Your task to perform on an android device: turn off location Image 0: 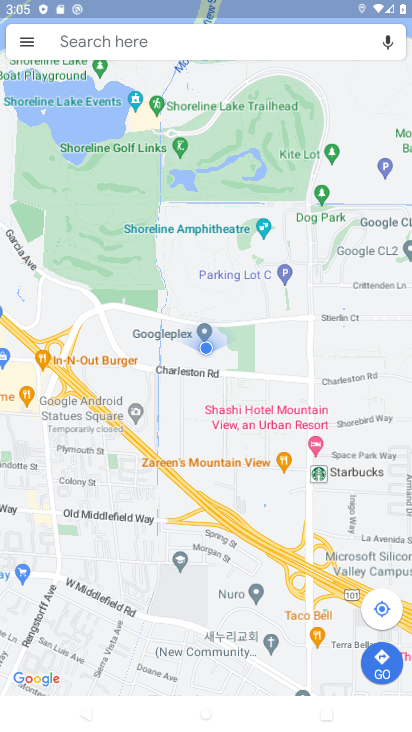
Step 0: press home button
Your task to perform on an android device: turn off location Image 1: 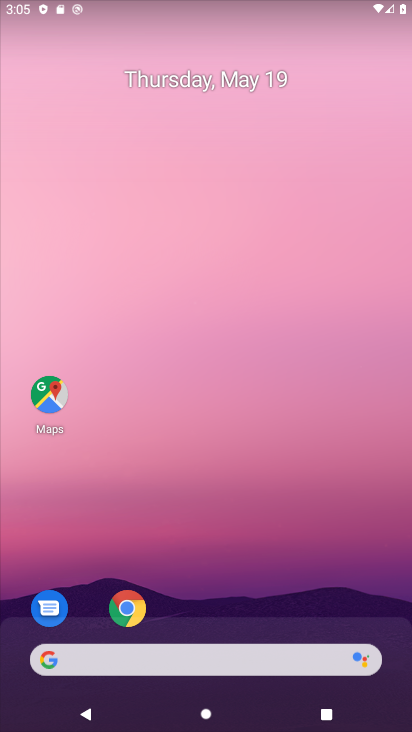
Step 1: drag from (243, 543) to (240, 10)
Your task to perform on an android device: turn off location Image 2: 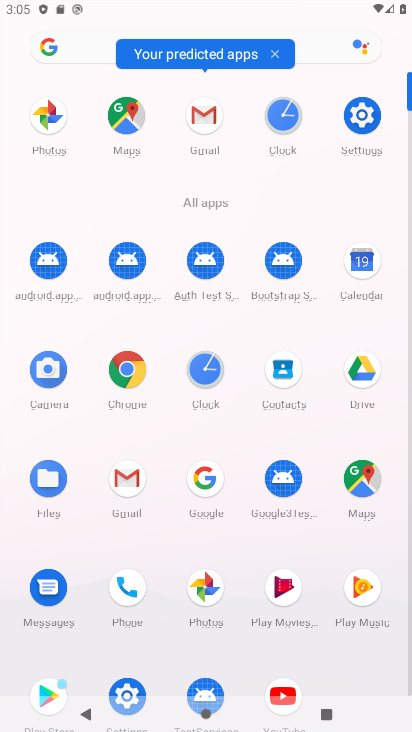
Step 2: click (353, 124)
Your task to perform on an android device: turn off location Image 3: 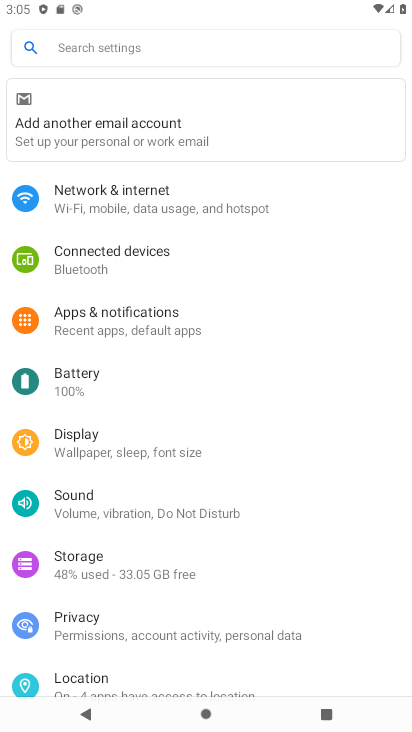
Step 3: click (133, 679)
Your task to perform on an android device: turn off location Image 4: 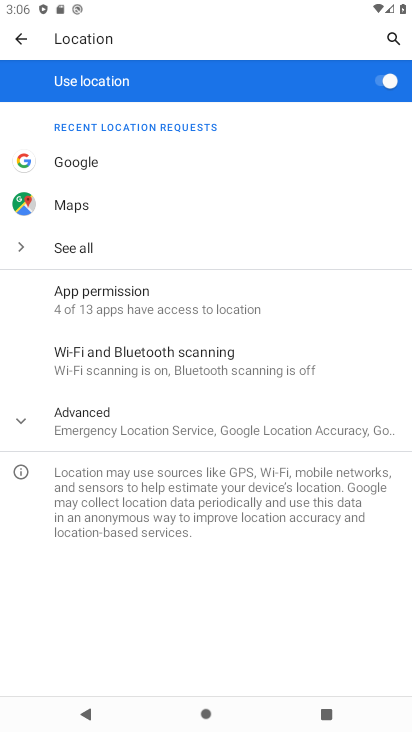
Step 4: click (366, 83)
Your task to perform on an android device: turn off location Image 5: 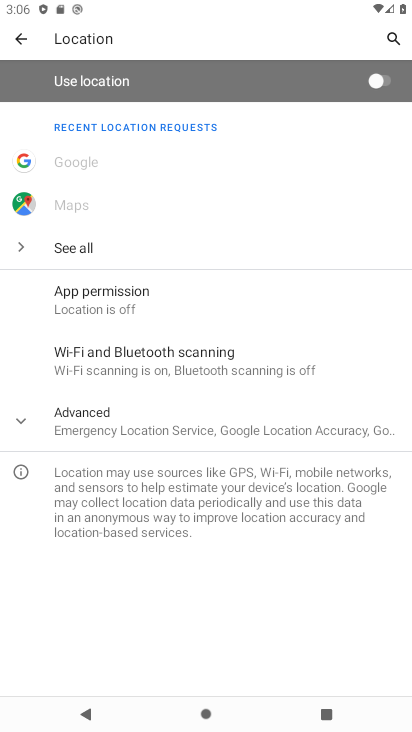
Step 5: task complete